Your task to perform on an android device: Open a new private window in Chrome Image 0: 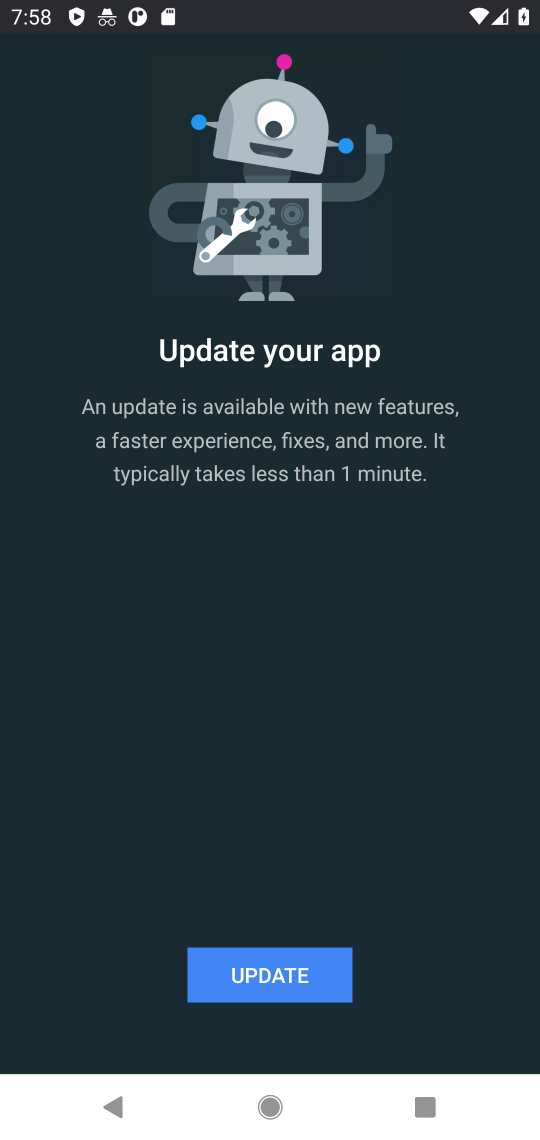
Step 0: press home button
Your task to perform on an android device: Open a new private window in Chrome Image 1: 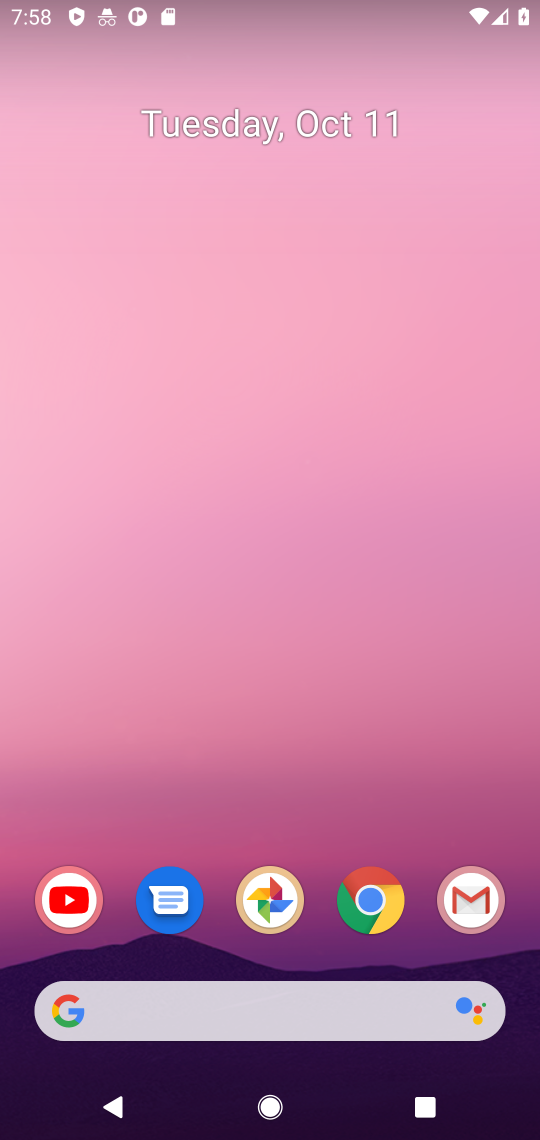
Step 1: click (396, 910)
Your task to perform on an android device: Open a new private window in Chrome Image 2: 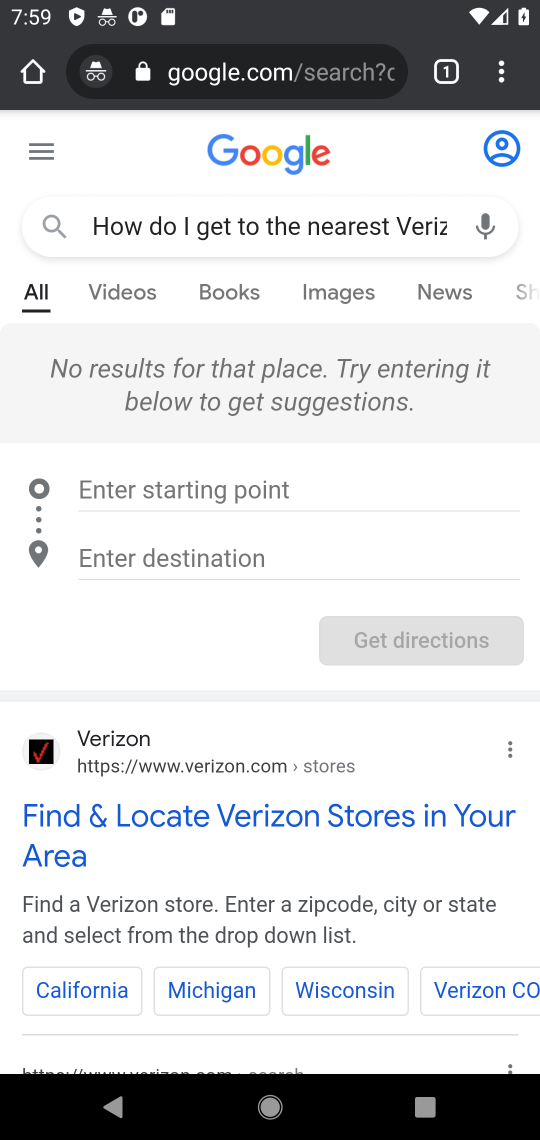
Step 2: click (507, 78)
Your task to perform on an android device: Open a new private window in Chrome Image 3: 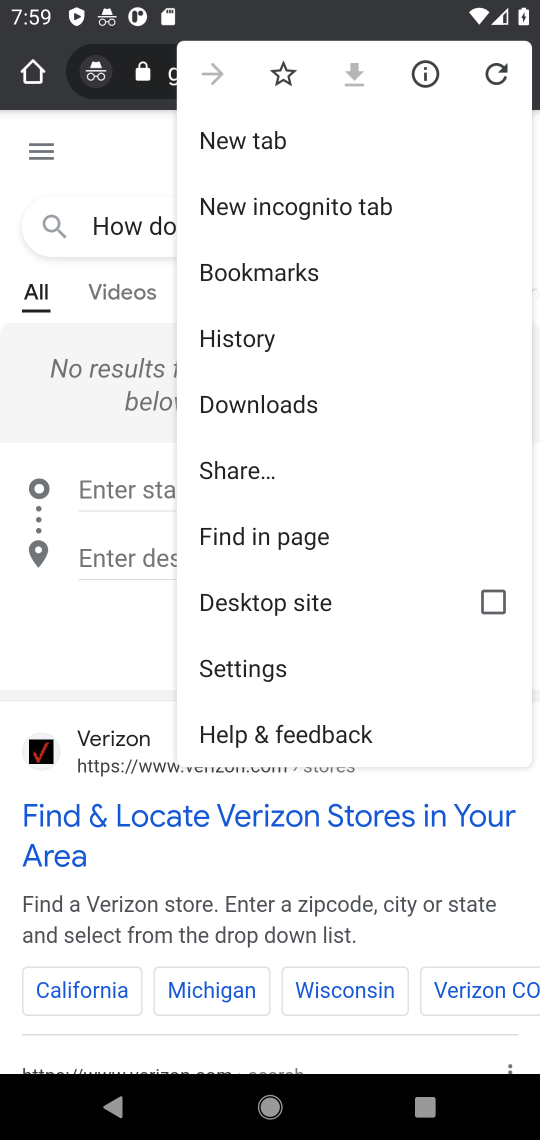
Step 3: click (387, 203)
Your task to perform on an android device: Open a new private window in Chrome Image 4: 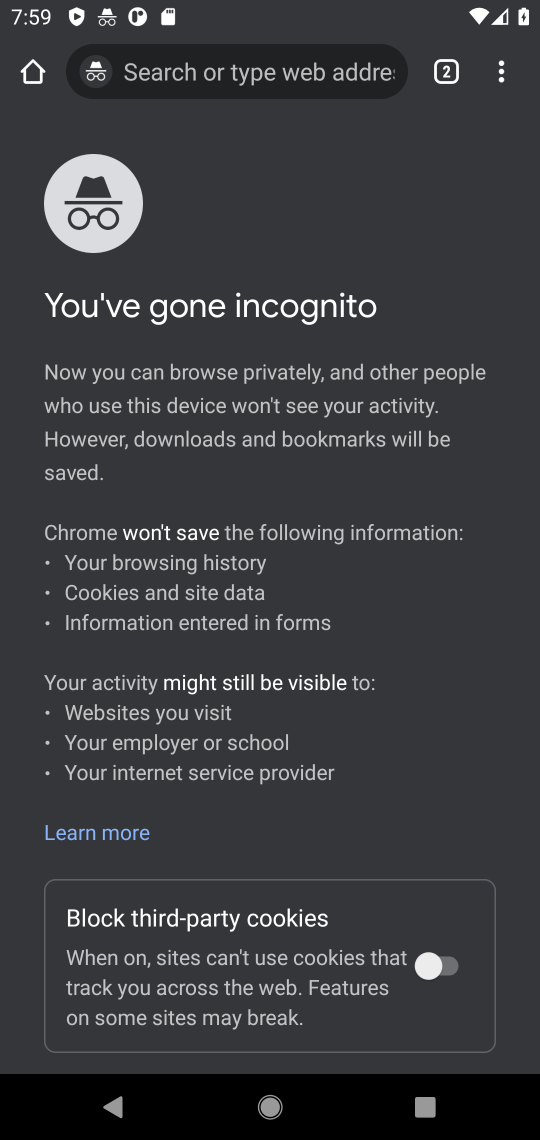
Step 4: task complete